Your task to perform on an android device: Go to Yahoo.com Image 0: 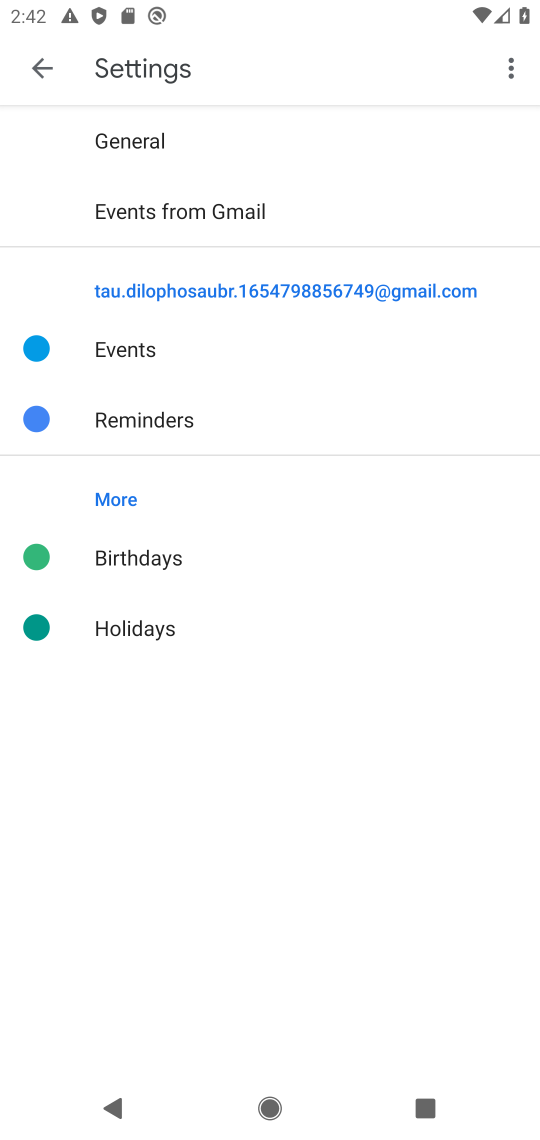
Step 0: press home button
Your task to perform on an android device: Go to Yahoo.com Image 1: 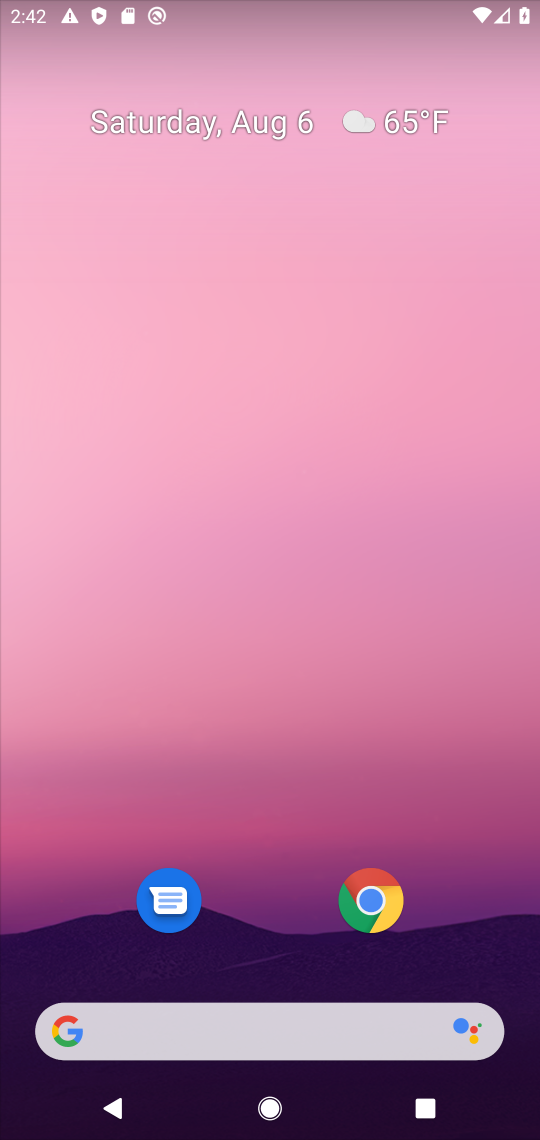
Step 1: click (243, 866)
Your task to perform on an android device: Go to Yahoo.com Image 2: 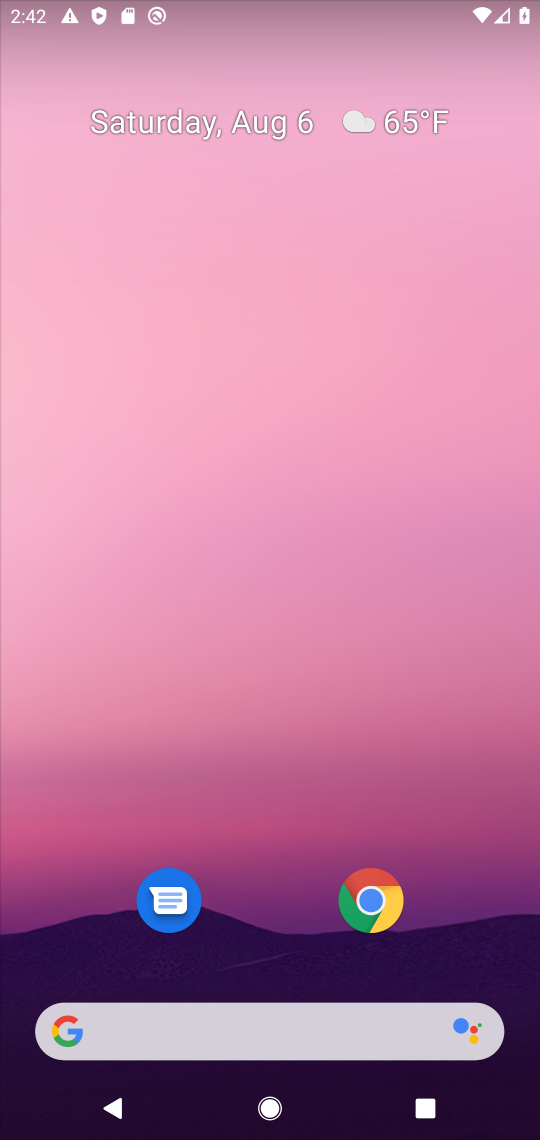
Step 2: click (70, 1041)
Your task to perform on an android device: Go to Yahoo.com Image 3: 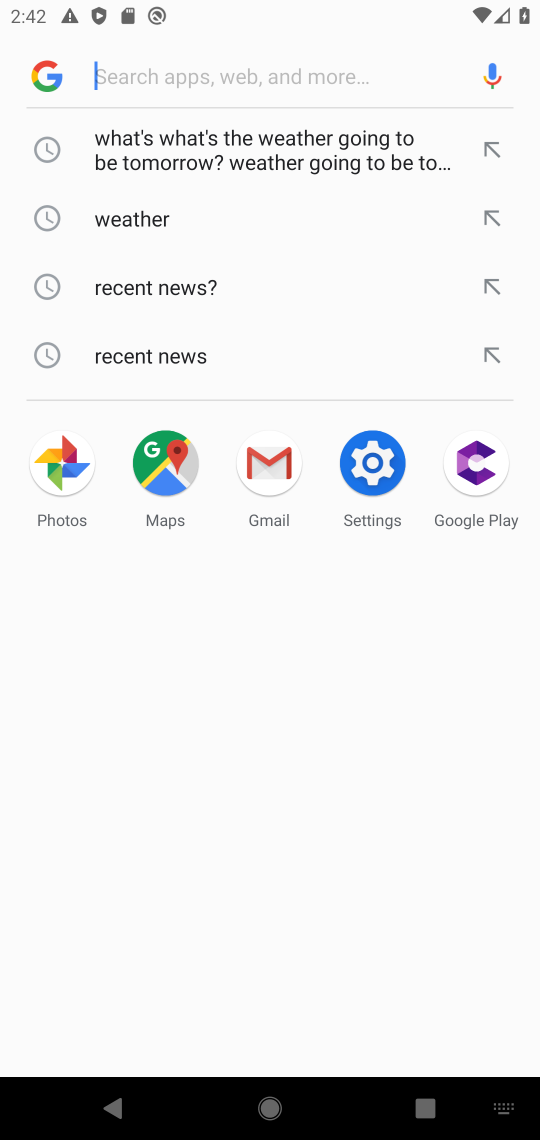
Step 3: type "Go to Yahoo.com"
Your task to perform on an android device: Go to Yahoo.com Image 4: 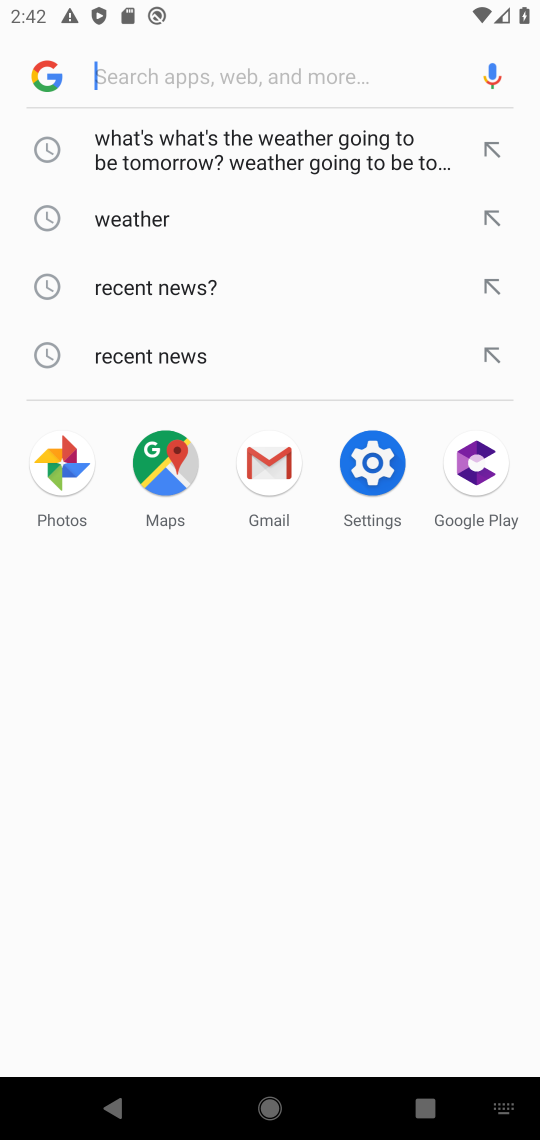
Step 4: click (304, 78)
Your task to perform on an android device: Go to Yahoo.com Image 5: 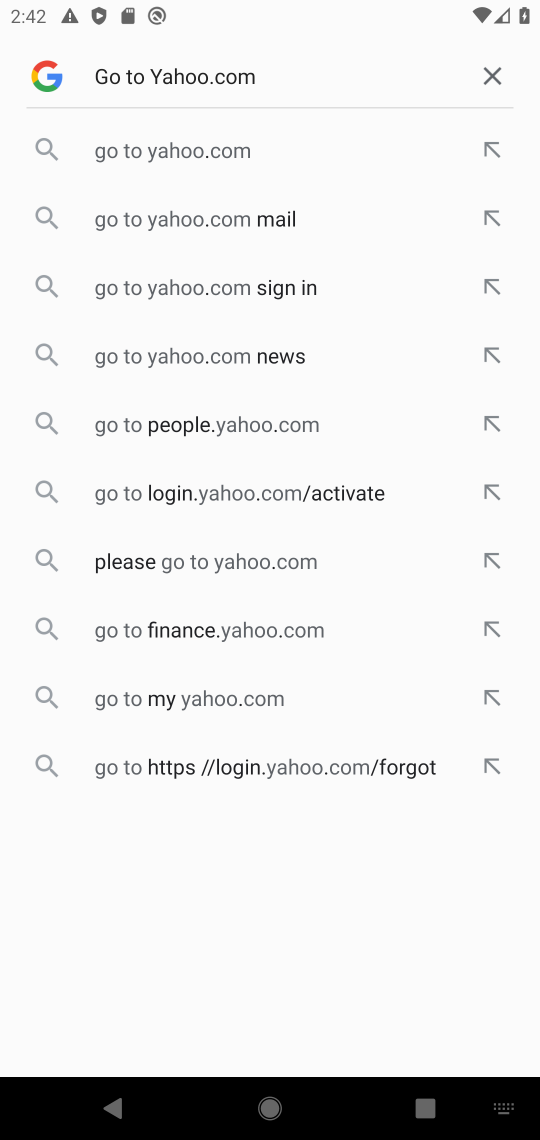
Step 5: click (183, 72)
Your task to perform on an android device: Go to Yahoo.com Image 6: 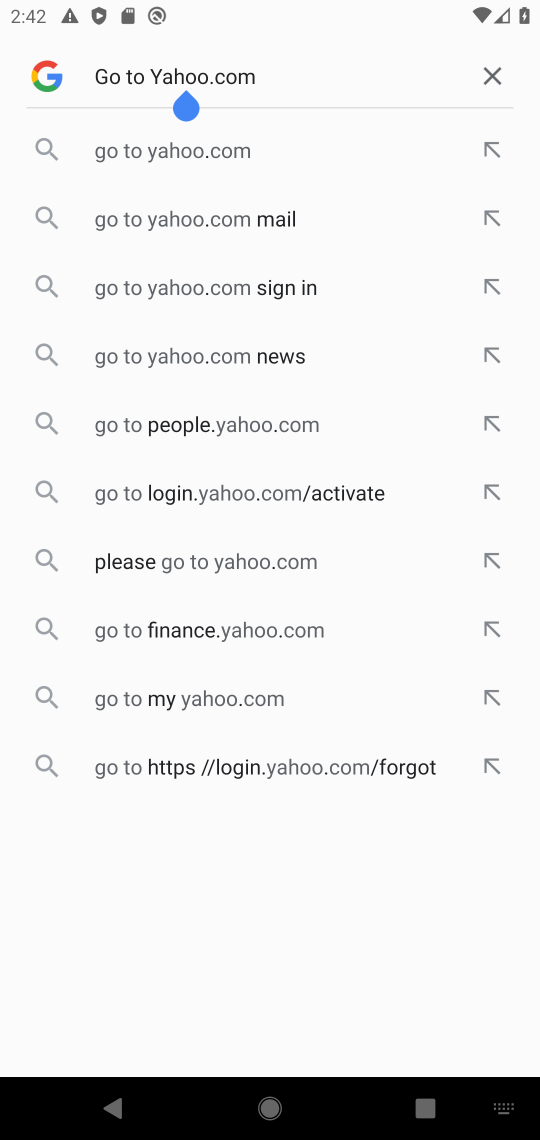
Step 6: press enter
Your task to perform on an android device: Go to Yahoo.com Image 7: 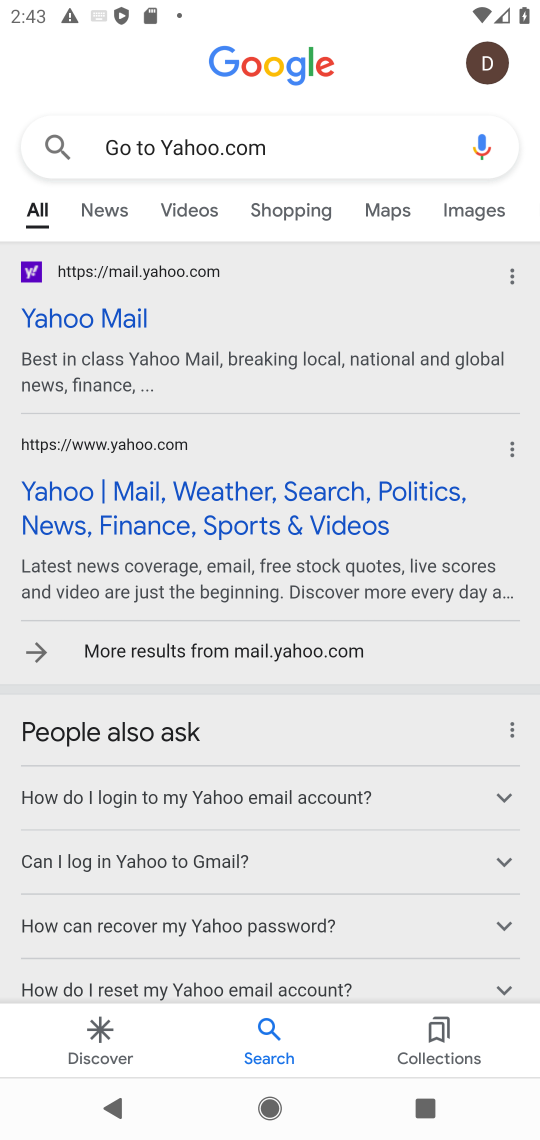
Step 7: click (65, 312)
Your task to perform on an android device: Go to Yahoo.com Image 8: 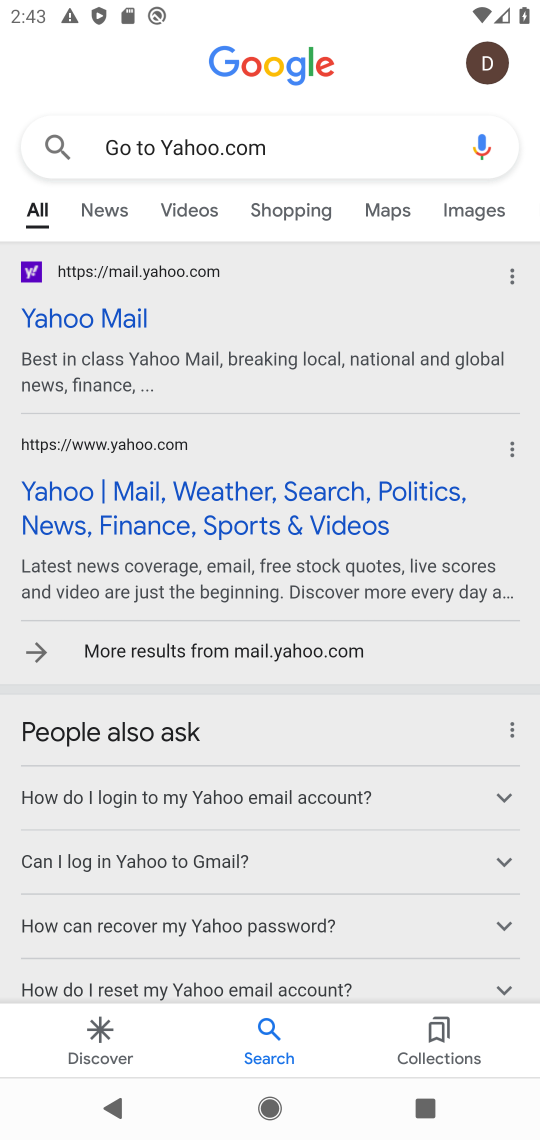
Step 8: click (64, 317)
Your task to perform on an android device: Go to Yahoo.com Image 9: 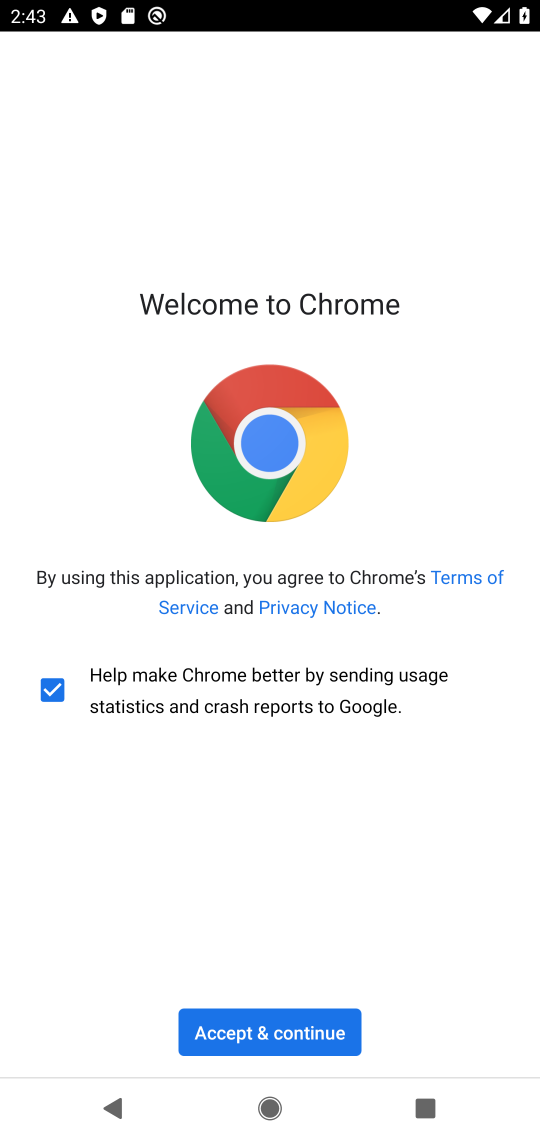
Step 9: click (272, 1034)
Your task to perform on an android device: Go to Yahoo.com Image 10: 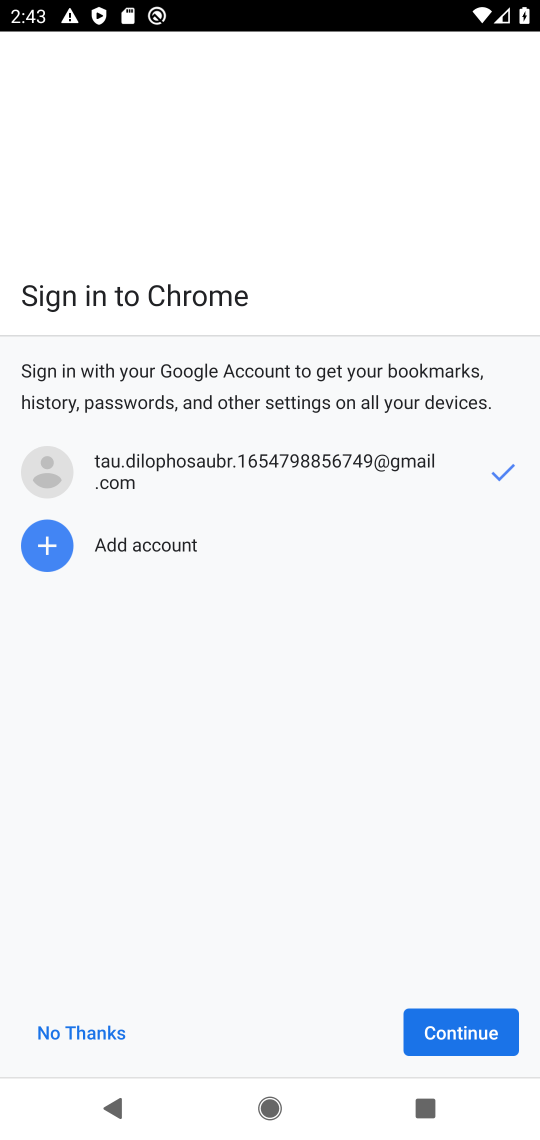
Step 10: click (461, 1032)
Your task to perform on an android device: Go to Yahoo.com Image 11: 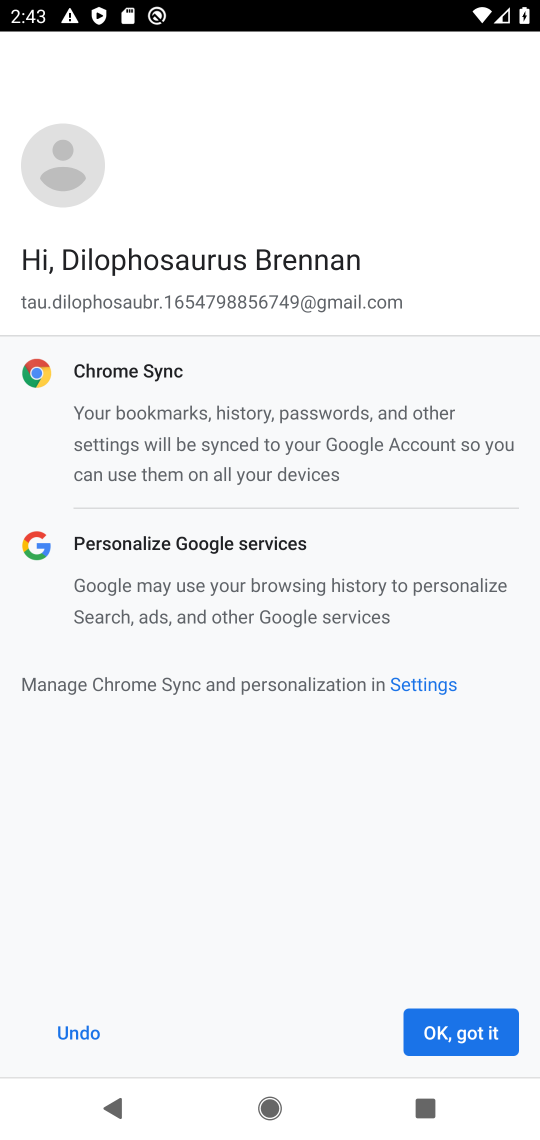
Step 11: click (443, 1027)
Your task to perform on an android device: Go to Yahoo.com Image 12: 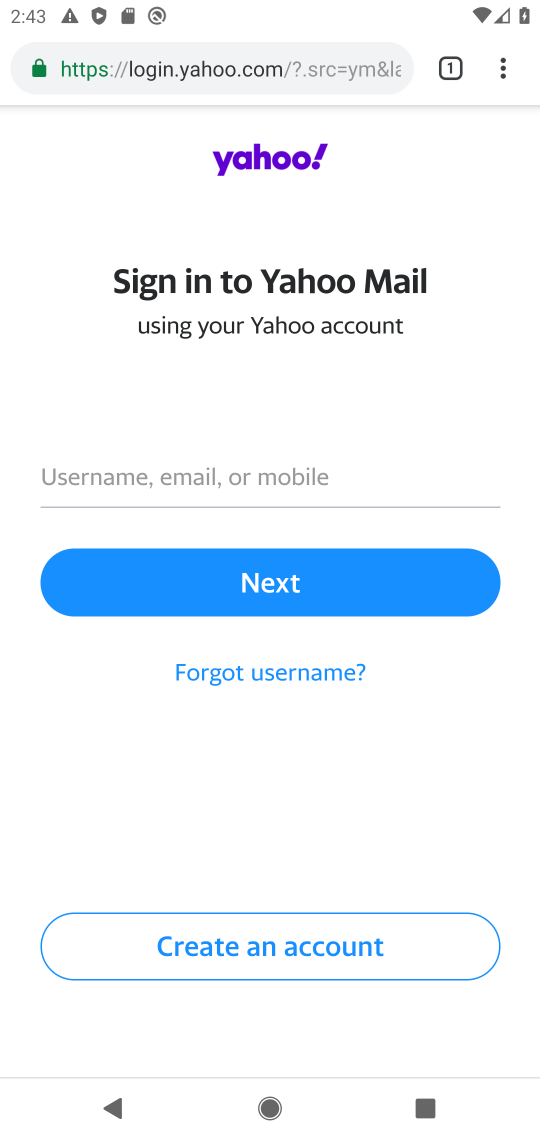
Step 12: task complete